Your task to perform on an android device: Go to display settings Image 0: 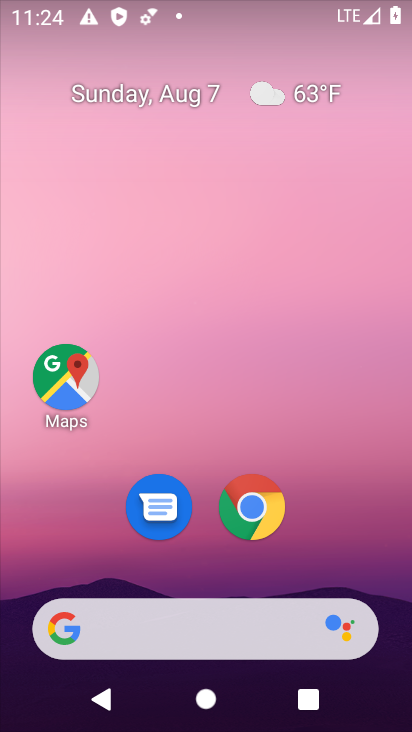
Step 0: drag from (364, 526) to (411, 446)
Your task to perform on an android device: Go to display settings Image 1: 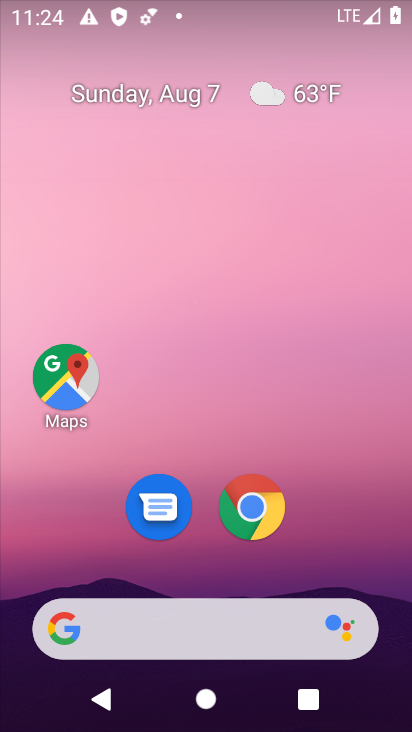
Step 1: drag from (354, 566) to (193, 0)
Your task to perform on an android device: Go to display settings Image 2: 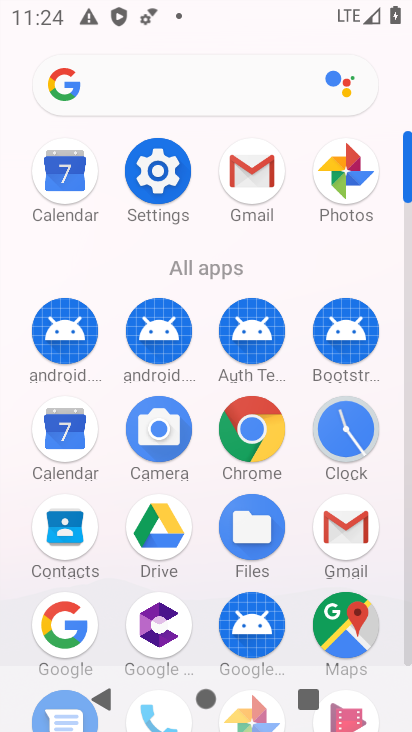
Step 2: click (159, 148)
Your task to perform on an android device: Go to display settings Image 3: 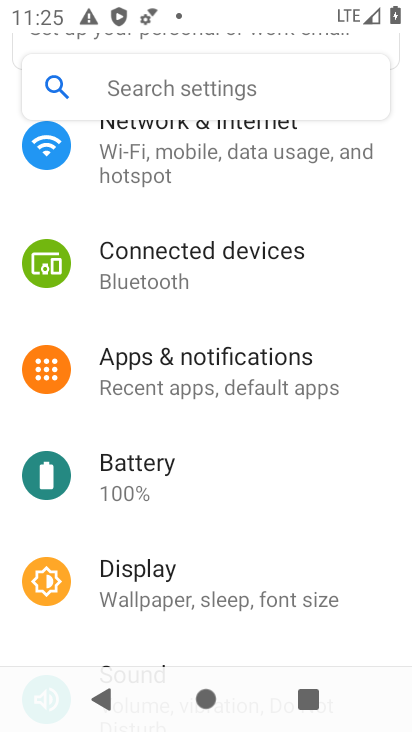
Step 3: click (135, 603)
Your task to perform on an android device: Go to display settings Image 4: 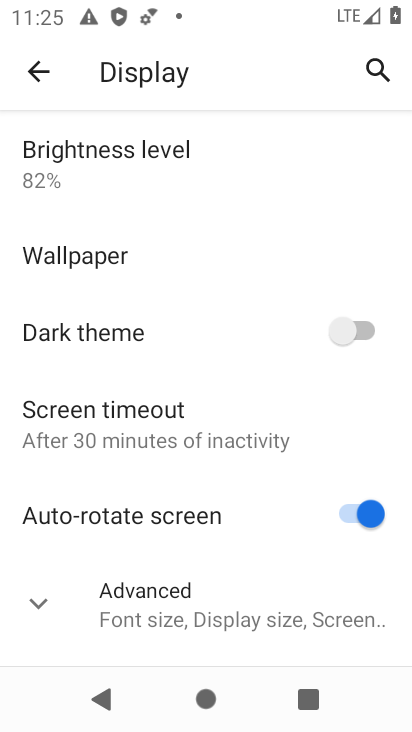
Step 4: task complete